Your task to perform on an android device: change notification settings in the gmail app Image 0: 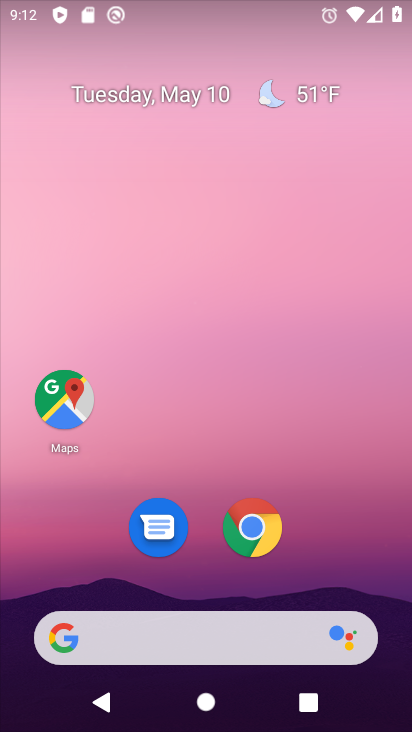
Step 0: drag from (202, 609) to (162, 10)
Your task to perform on an android device: change notification settings in the gmail app Image 1: 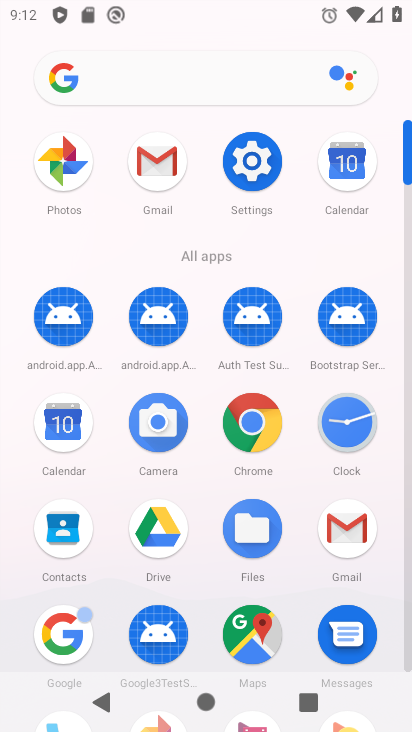
Step 1: click (356, 539)
Your task to perform on an android device: change notification settings in the gmail app Image 2: 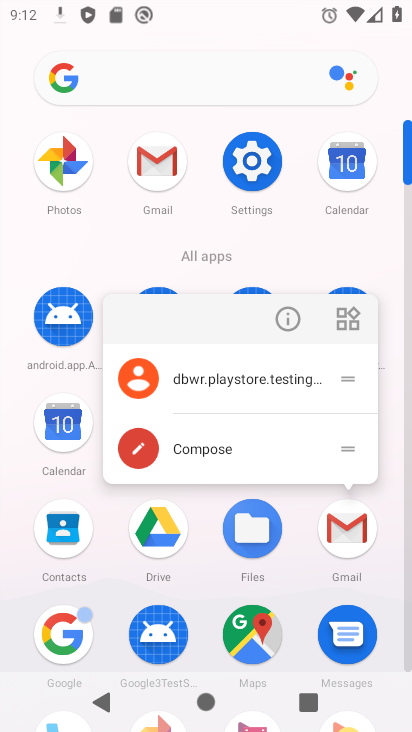
Step 2: click (349, 526)
Your task to perform on an android device: change notification settings in the gmail app Image 3: 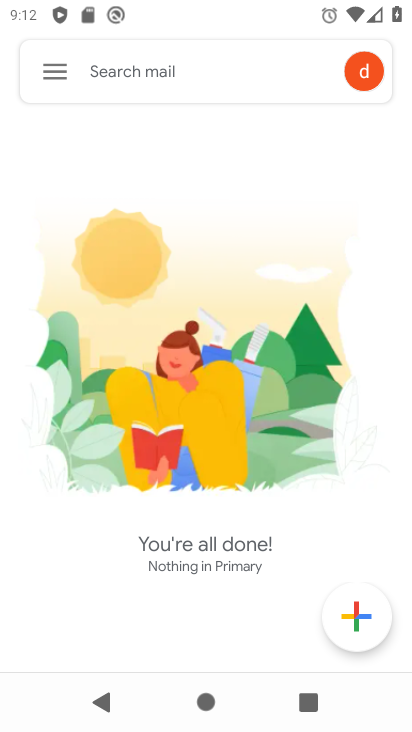
Step 3: click (45, 64)
Your task to perform on an android device: change notification settings in the gmail app Image 4: 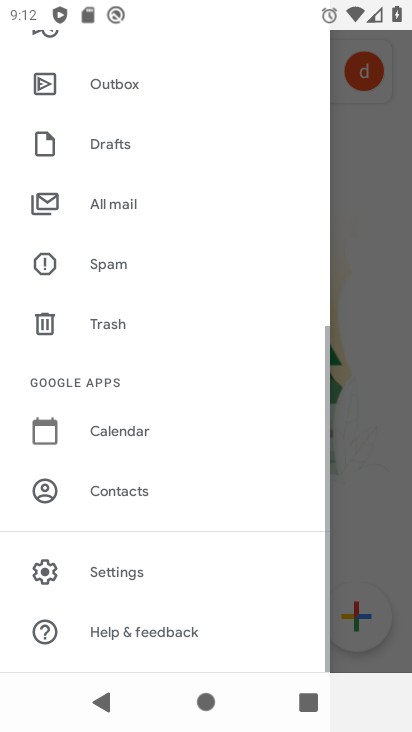
Step 4: click (126, 554)
Your task to perform on an android device: change notification settings in the gmail app Image 5: 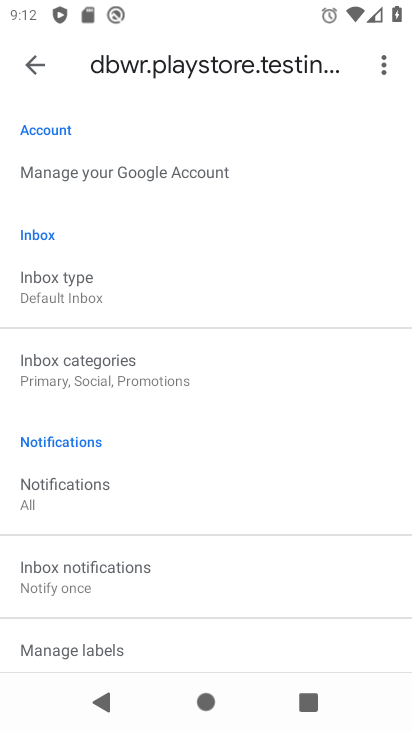
Step 5: click (39, 55)
Your task to perform on an android device: change notification settings in the gmail app Image 6: 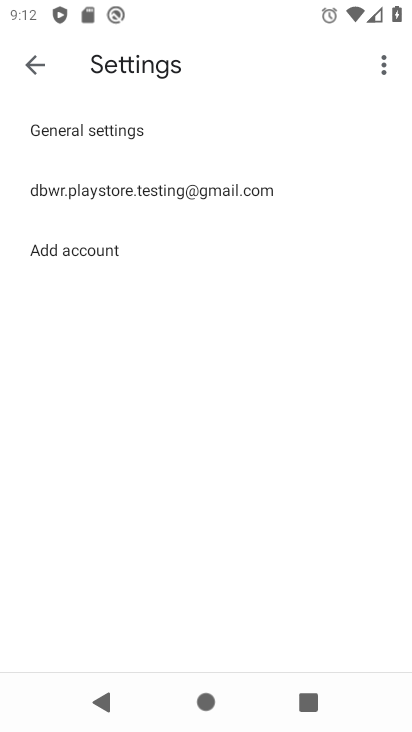
Step 6: click (86, 127)
Your task to perform on an android device: change notification settings in the gmail app Image 7: 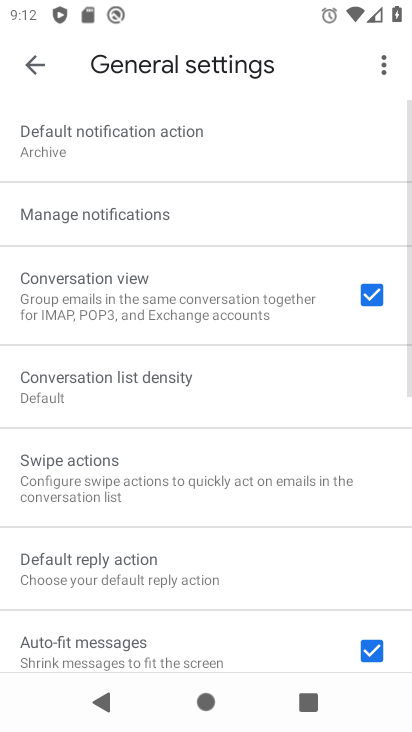
Step 7: click (95, 213)
Your task to perform on an android device: change notification settings in the gmail app Image 8: 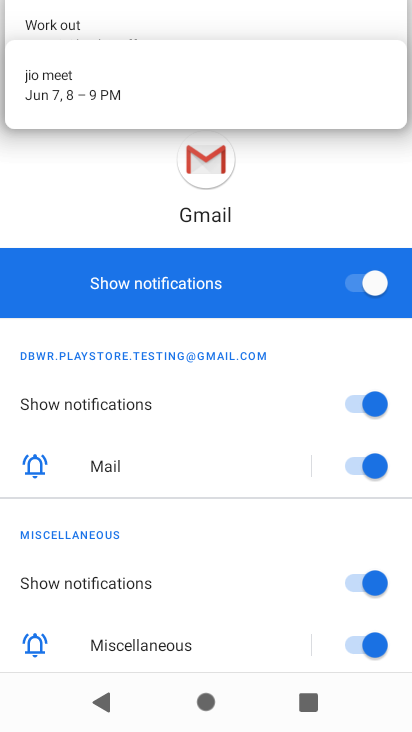
Step 8: click (358, 289)
Your task to perform on an android device: change notification settings in the gmail app Image 9: 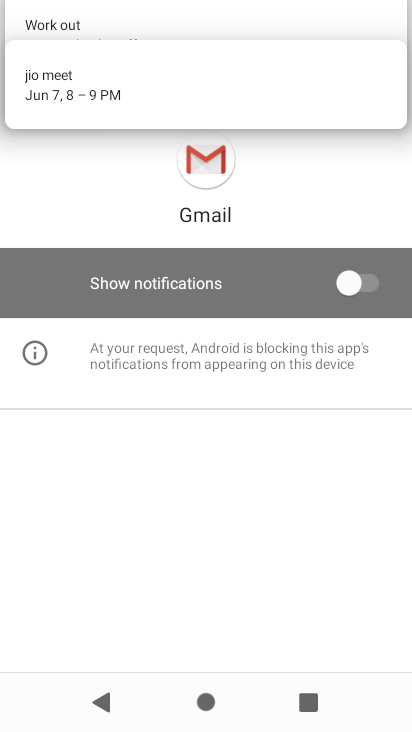
Step 9: task complete